Your task to perform on an android device: turn off smart reply in the gmail app Image 0: 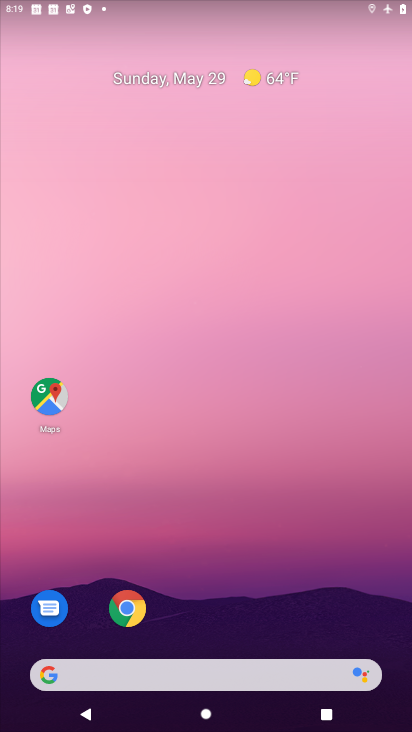
Step 0: drag from (240, 540) to (155, 12)
Your task to perform on an android device: turn off smart reply in the gmail app Image 1: 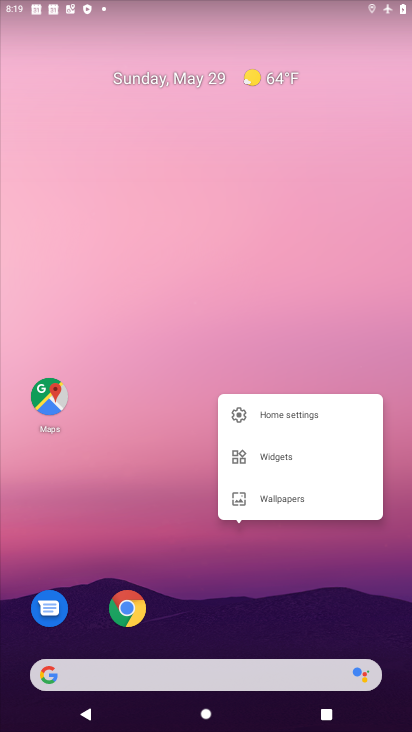
Step 1: click (155, 474)
Your task to perform on an android device: turn off smart reply in the gmail app Image 2: 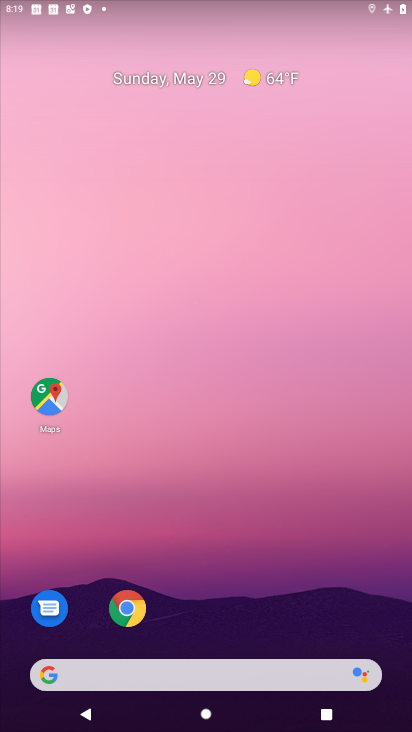
Step 2: drag from (155, 474) to (138, 207)
Your task to perform on an android device: turn off smart reply in the gmail app Image 3: 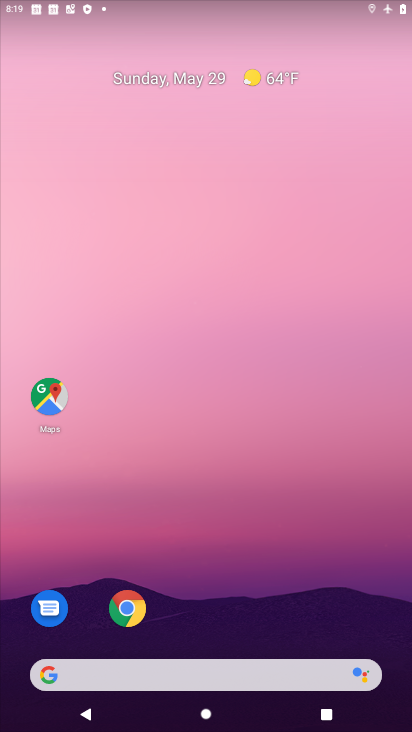
Step 3: drag from (197, 473) to (107, 64)
Your task to perform on an android device: turn off smart reply in the gmail app Image 4: 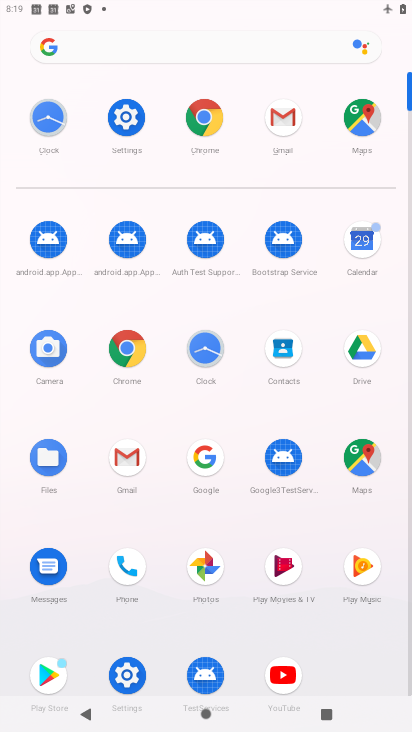
Step 4: click (279, 111)
Your task to perform on an android device: turn off smart reply in the gmail app Image 5: 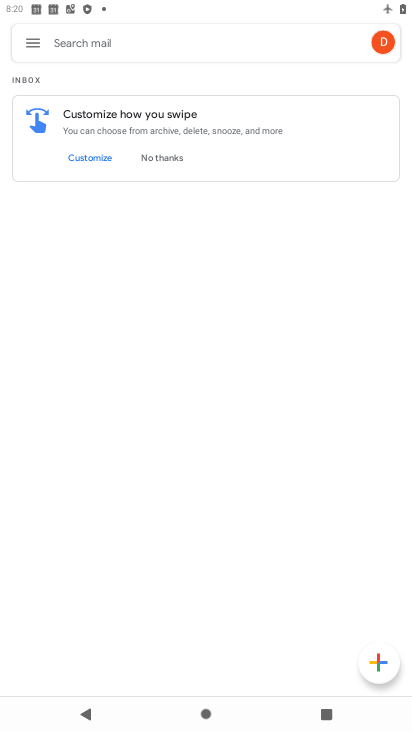
Step 5: click (32, 40)
Your task to perform on an android device: turn off smart reply in the gmail app Image 6: 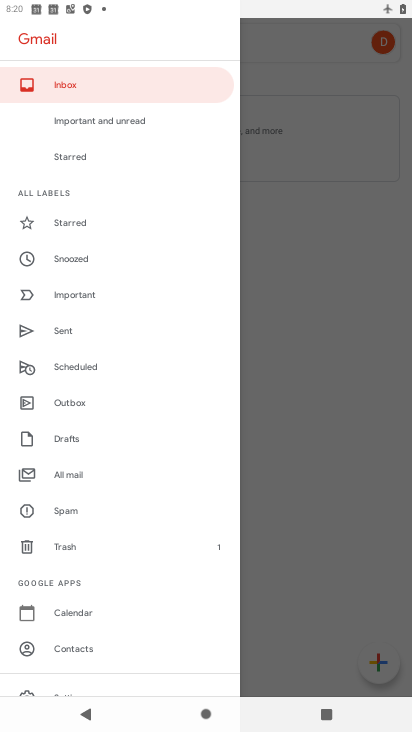
Step 6: drag from (117, 581) to (117, 292)
Your task to perform on an android device: turn off smart reply in the gmail app Image 7: 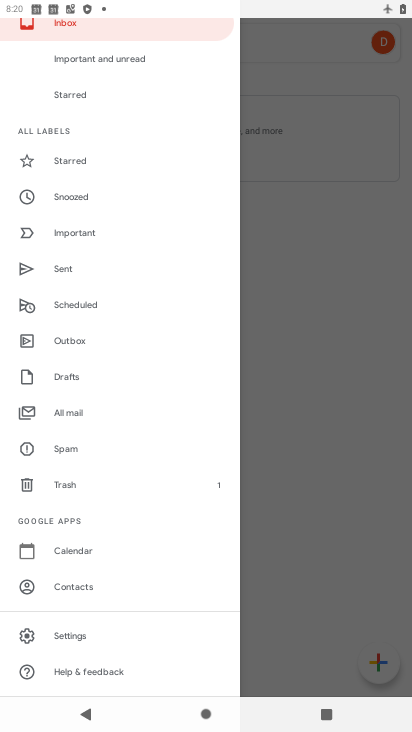
Step 7: click (68, 633)
Your task to perform on an android device: turn off smart reply in the gmail app Image 8: 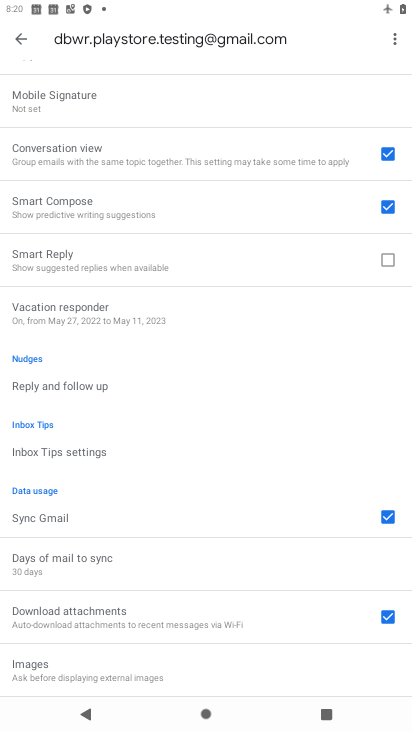
Step 8: task complete